Your task to perform on an android device: change timer sound Image 0: 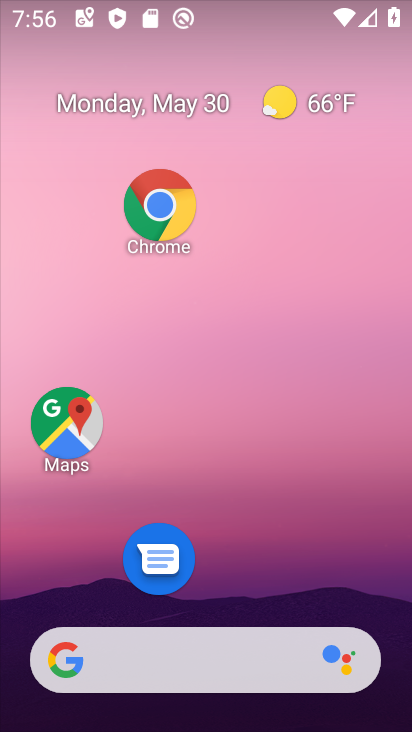
Step 0: drag from (345, 688) to (381, 643)
Your task to perform on an android device: change timer sound Image 1: 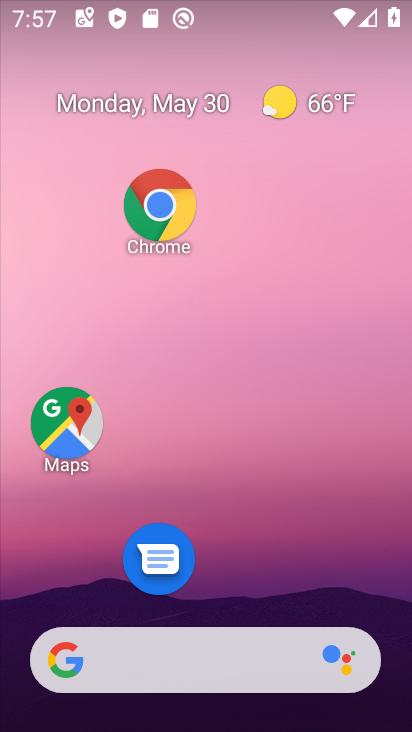
Step 1: drag from (287, 654) to (188, 88)
Your task to perform on an android device: change timer sound Image 2: 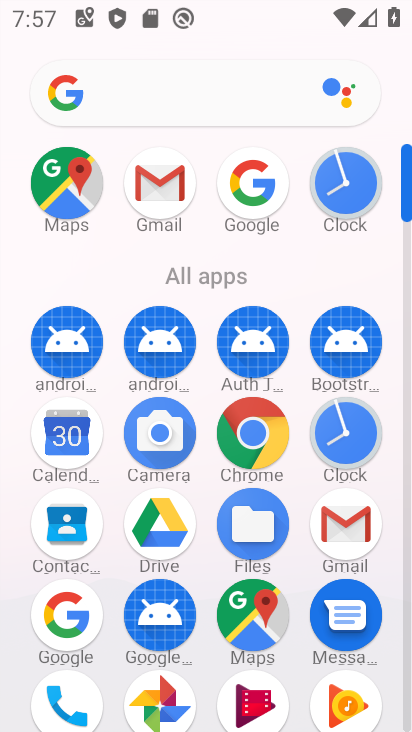
Step 2: drag from (219, 533) to (215, 253)
Your task to perform on an android device: change timer sound Image 3: 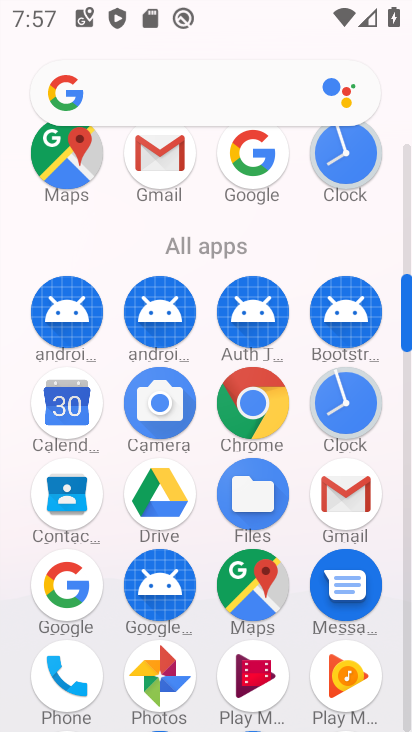
Step 3: drag from (206, 490) to (157, 270)
Your task to perform on an android device: change timer sound Image 4: 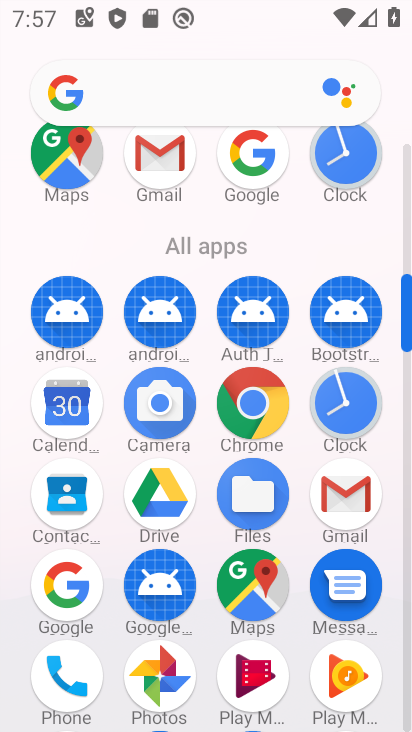
Step 4: drag from (212, 530) to (152, 153)
Your task to perform on an android device: change timer sound Image 5: 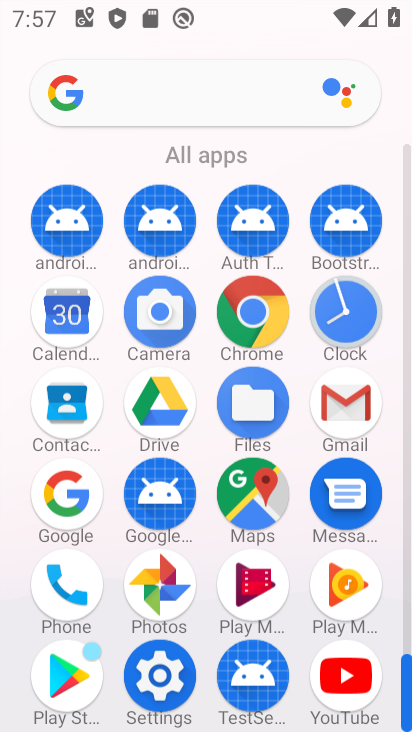
Step 5: drag from (191, 519) to (206, 254)
Your task to perform on an android device: change timer sound Image 6: 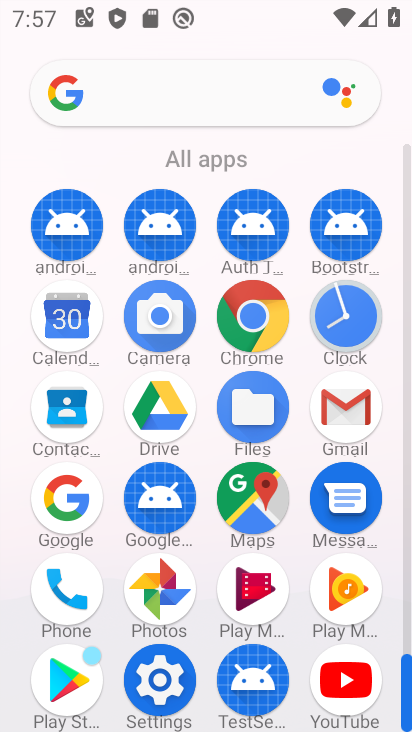
Step 6: click (155, 681)
Your task to perform on an android device: change timer sound Image 7: 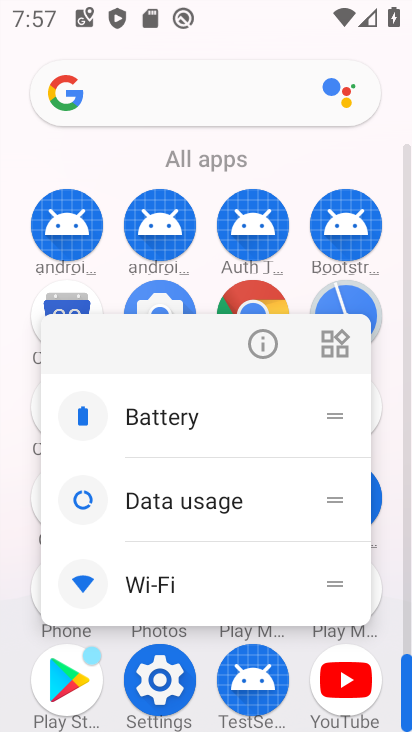
Step 7: click (159, 670)
Your task to perform on an android device: change timer sound Image 8: 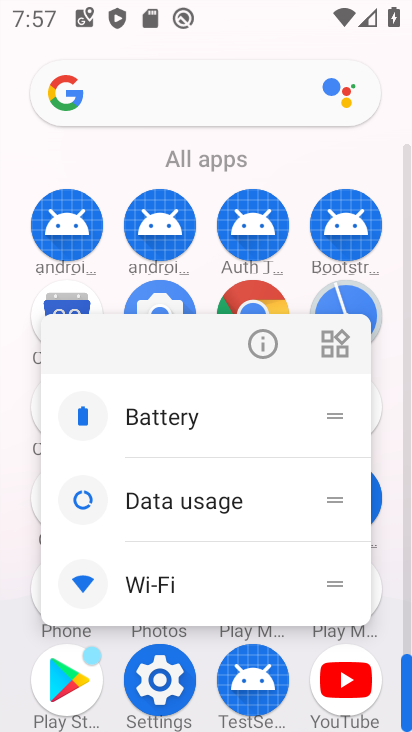
Step 8: click (162, 668)
Your task to perform on an android device: change timer sound Image 9: 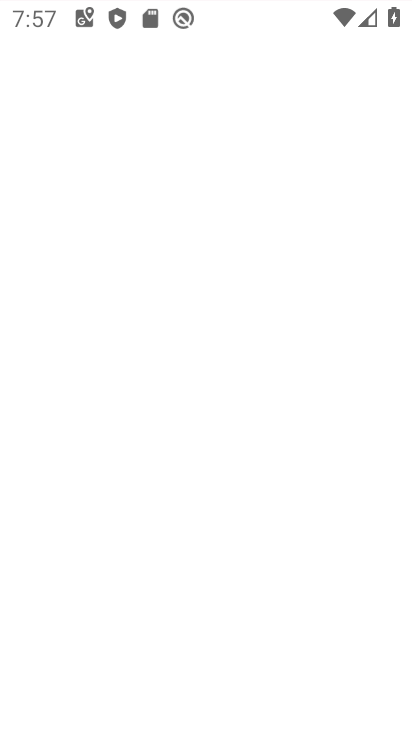
Step 9: click (165, 662)
Your task to perform on an android device: change timer sound Image 10: 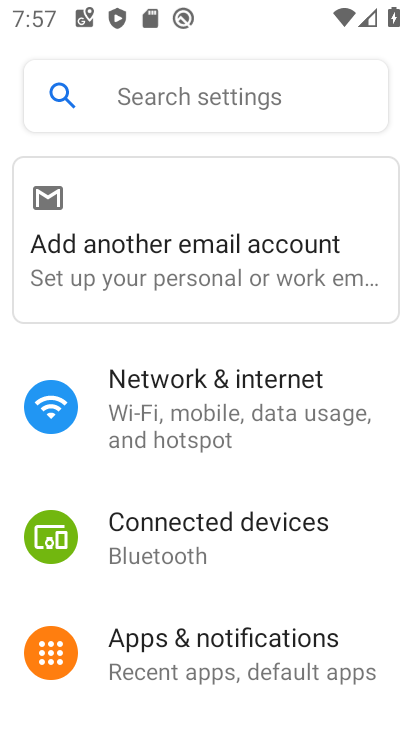
Step 10: drag from (220, 591) to (160, 237)
Your task to perform on an android device: change timer sound Image 11: 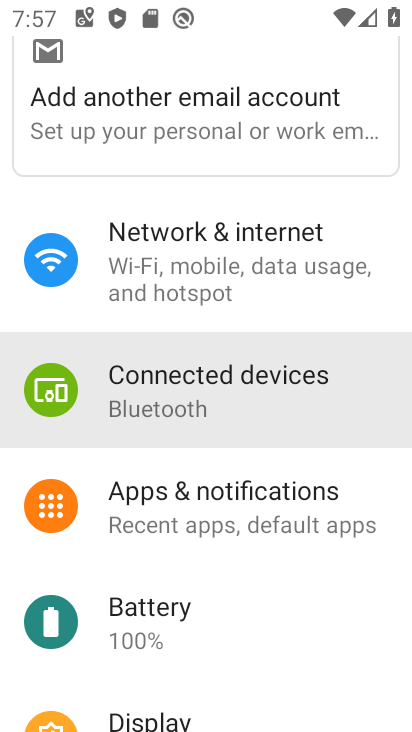
Step 11: drag from (224, 558) to (206, 256)
Your task to perform on an android device: change timer sound Image 12: 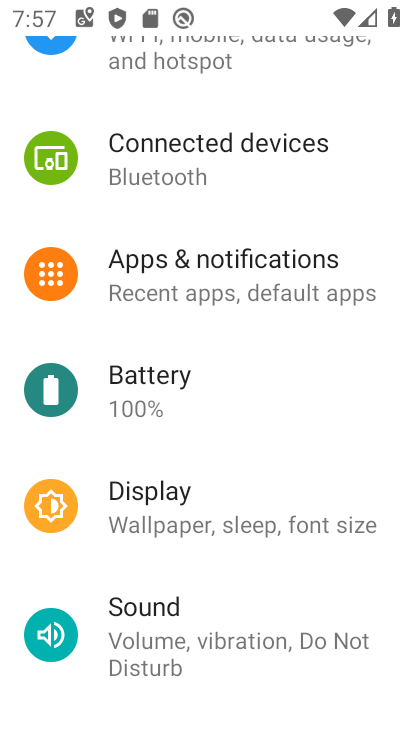
Step 12: drag from (218, 489) to (313, 71)
Your task to perform on an android device: change timer sound Image 13: 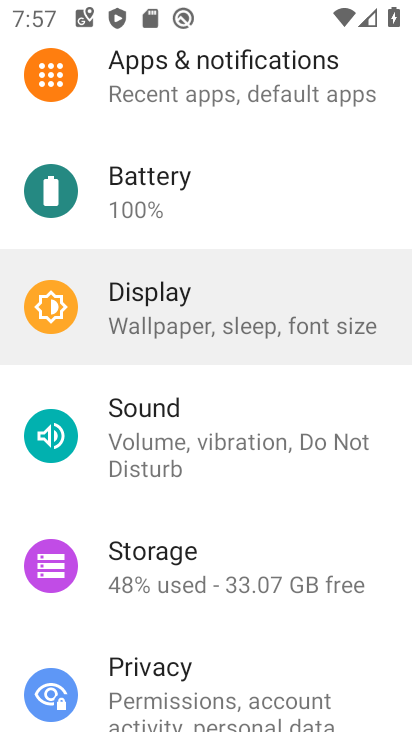
Step 13: drag from (217, 503) to (200, 144)
Your task to perform on an android device: change timer sound Image 14: 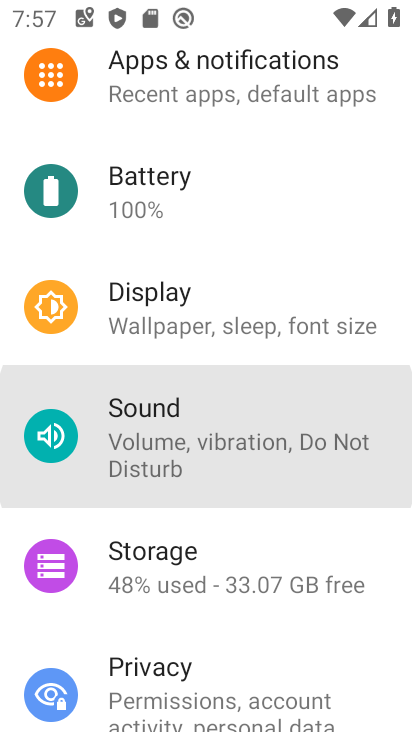
Step 14: drag from (184, 434) to (180, 152)
Your task to perform on an android device: change timer sound Image 15: 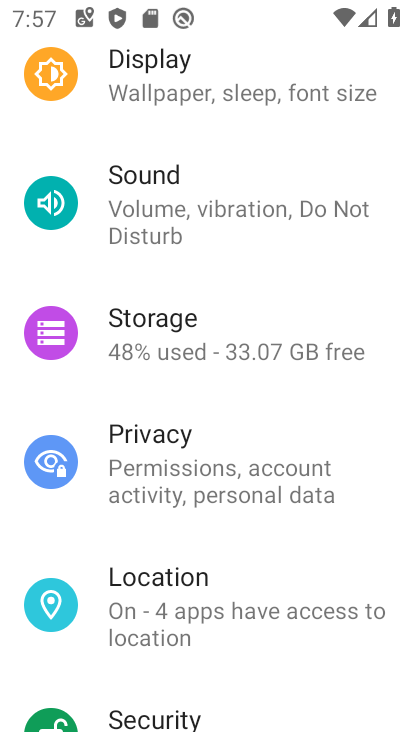
Step 15: drag from (228, 564) to (222, 137)
Your task to perform on an android device: change timer sound Image 16: 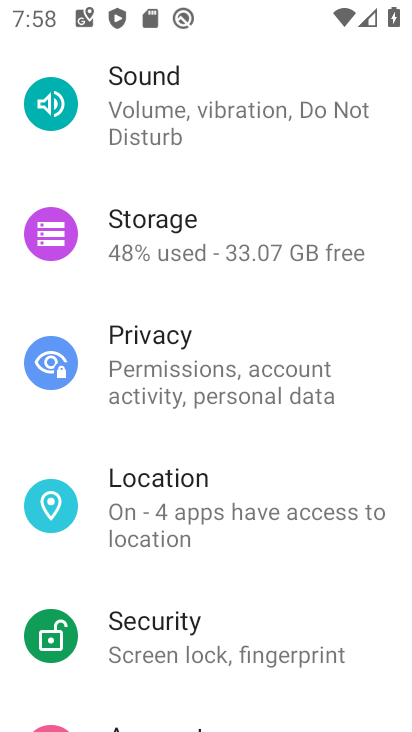
Step 16: press back button
Your task to perform on an android device: change timer sound Image 17: 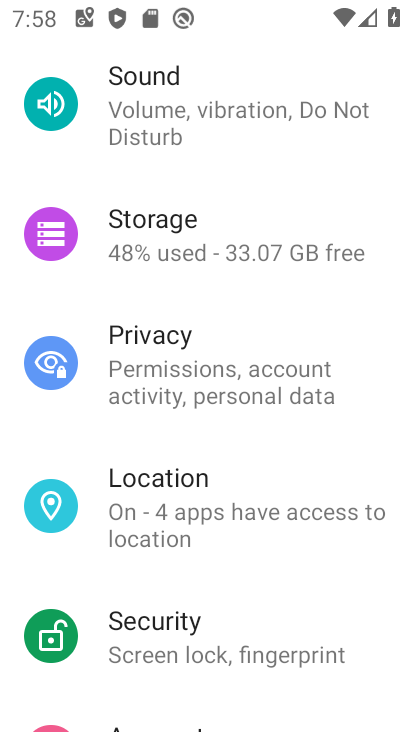
Step 17: press back button
Your task to perform on an android device: change timer sound Image 18: 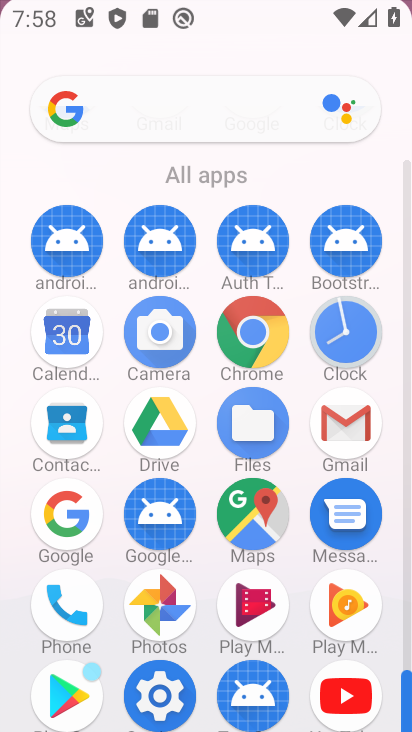
Step 18: press back button
Your task to perform on an android device: change timer sound Image 19: 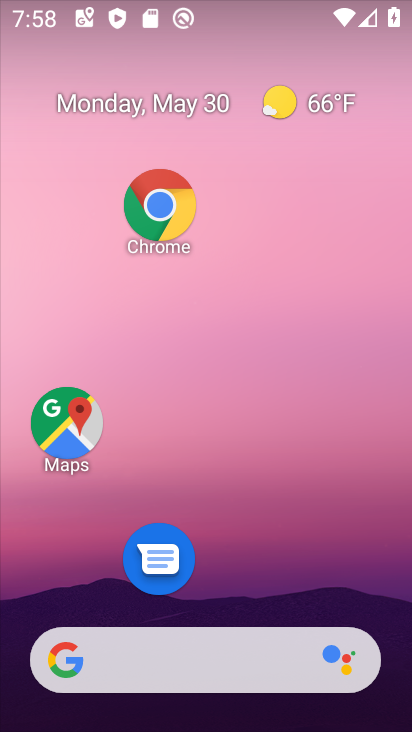
Step 19: drag from (174, 357) to (108, 130)
Your task to perform on an android device: change timer sound Image 20: 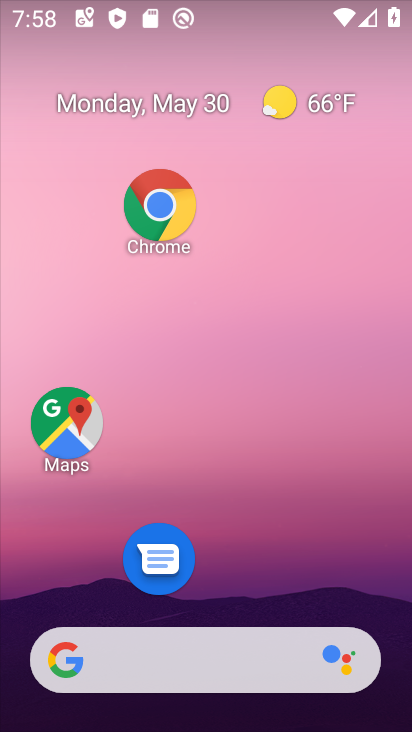
Step 20: drag from (269, 704) to (81, 59)
Your task to perform on an android device: change timer sound Image 21: 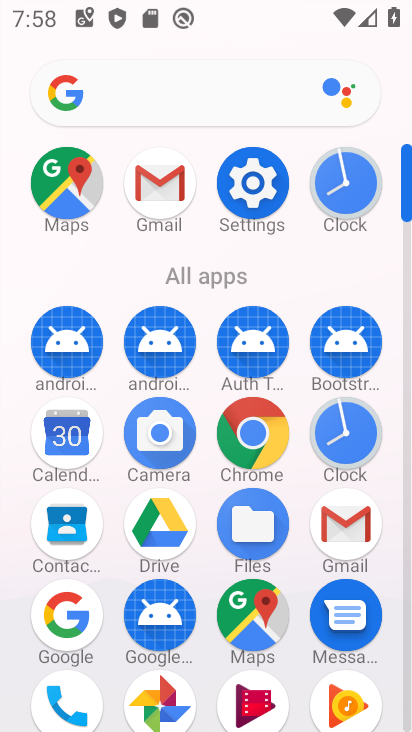
Step 21: click (326, 191)
Your task to perform on an android device: change timer sound Image 22: 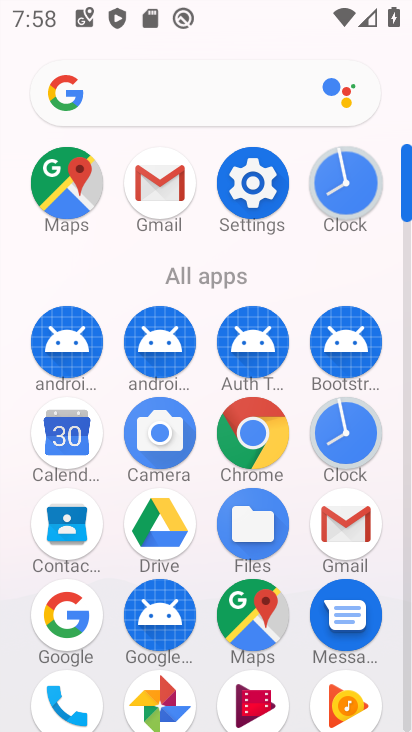
Step 22: click (327, 190)
Your task to perform on an android device: change timer sound Image 23: 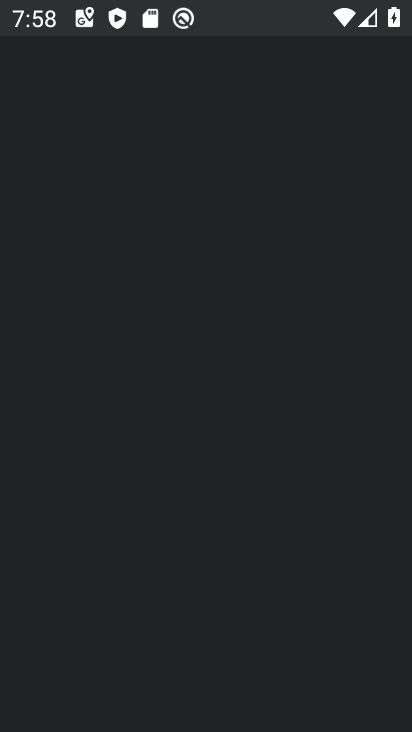
Step 23: click (334, 195)
Your task to perform on an android device: change timer sound Image 24: 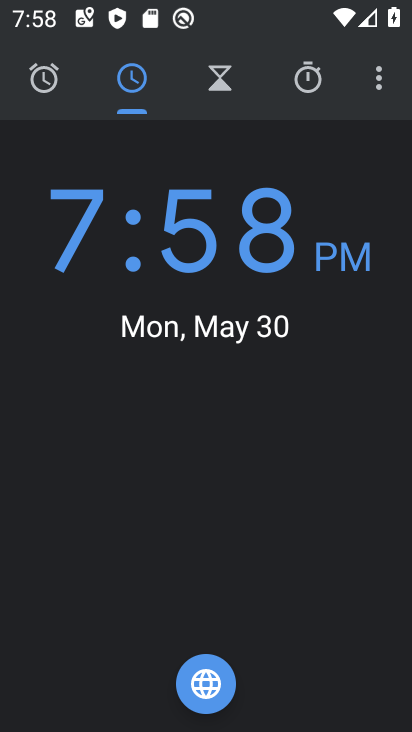
Step 24: click (217, 78)
Your task to perform on an android device: change timer sound Image 25: 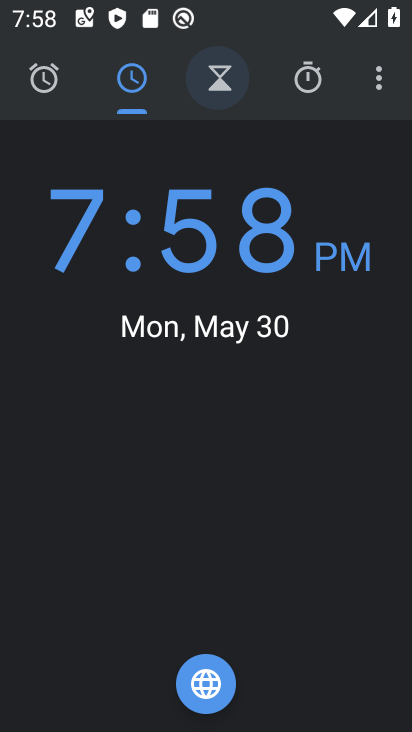
Step 25: click (217, 78)
Your task to perform on an android device: change timer sound Image 26: 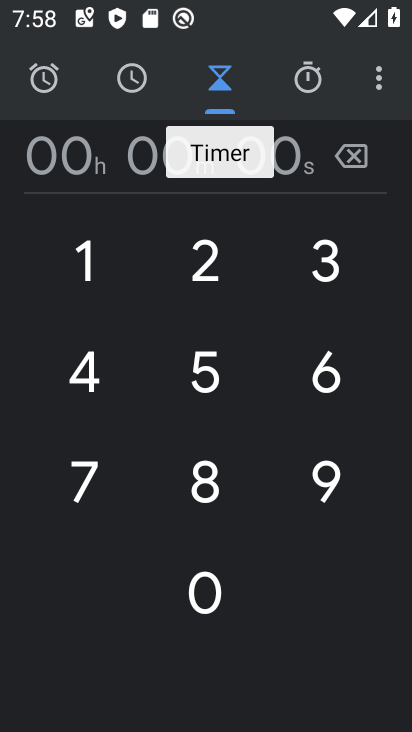
Step 26: click (216, 472)
Your task to perform on an android device: change timer sound Image 27: 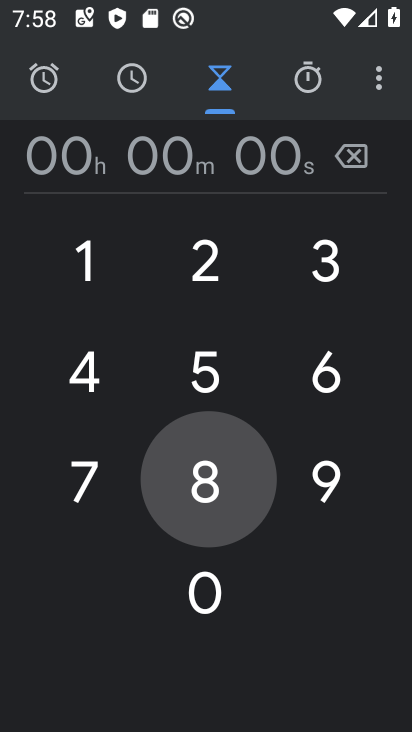
Step 27: click (216, 472)
Your task to perform on an android device: change timer sound Image 28: 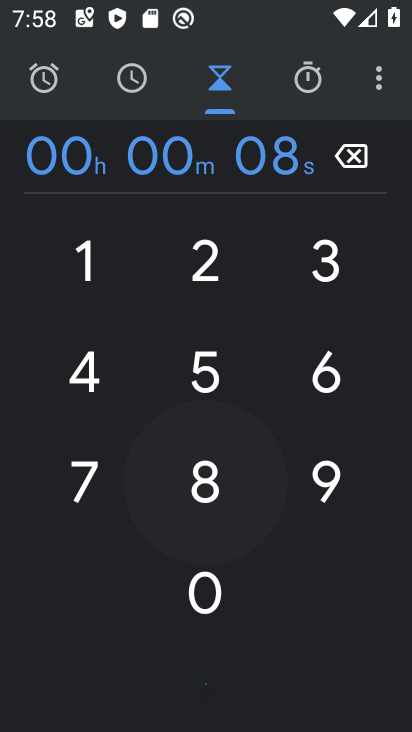
Step 28: click (216, 472)
Your task to perform on an android device: change timer sound Image 29: 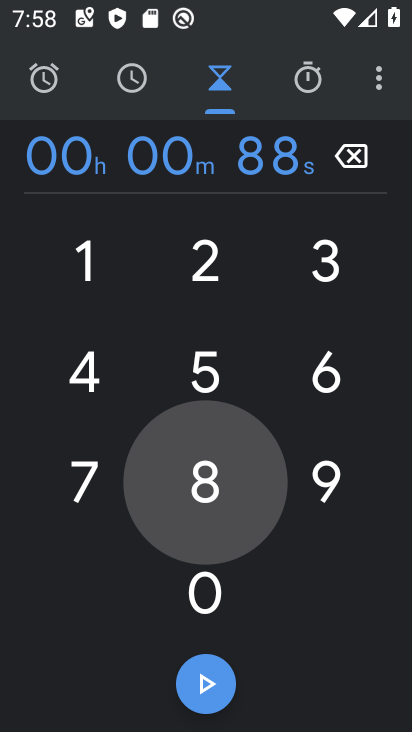
Step 29: click (224, 471)
Your task to perform on an android device: change timer sound Image 30: 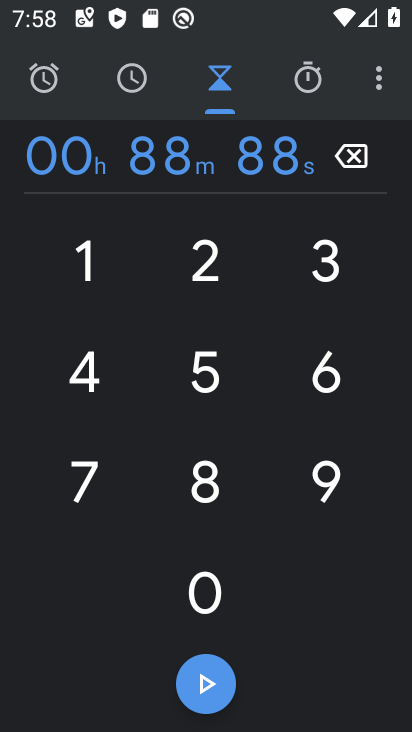
Step 30: click (208, 480)
Your task to perform on an android device: change timer sound Image 31: 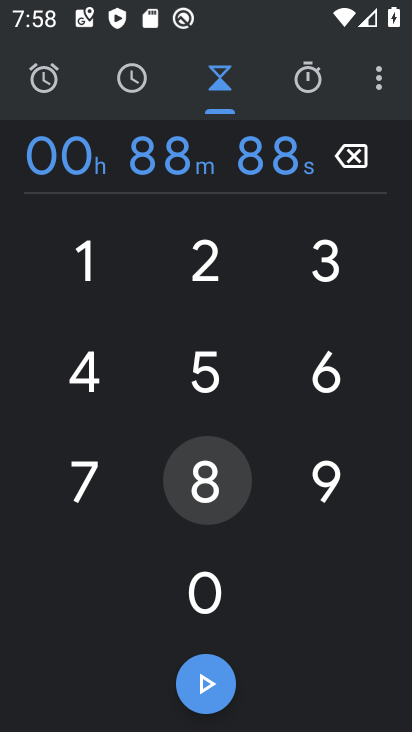
Step 31: click (209, 480)
Your task to perform on an android device: change timer sound Image 32: 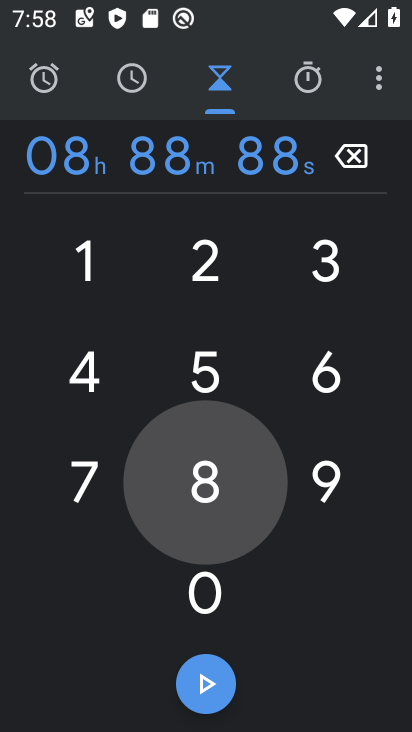
Step 32: click (210, 481)
Your task to perform on an android device: change timer sound Image 33: 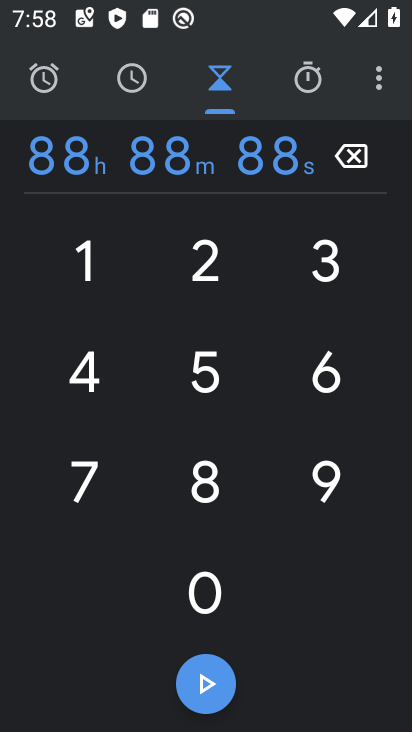
Step 33: click (206, 475)
Your task to perform on an android device: change timer sound Image 34: 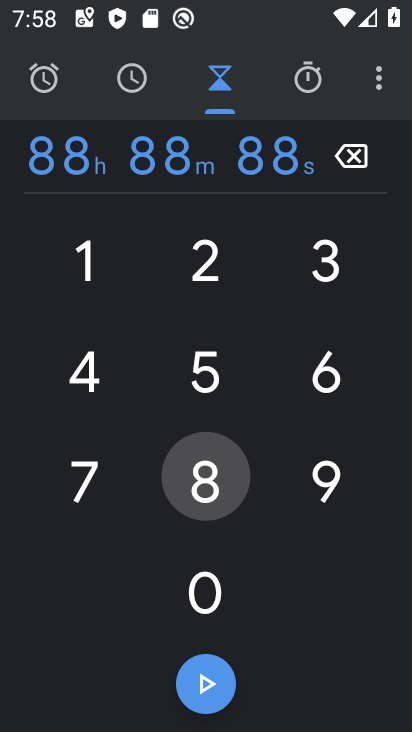
Step 34: click (206, 476)
Your task to perform on an android device: change timer sound Image 35: 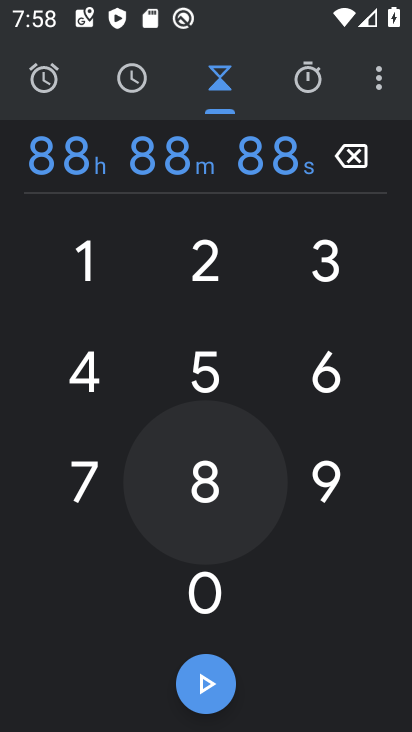
Step 35: click (206, 476)
Your task to perform on an android device: change timer sound Image 36: 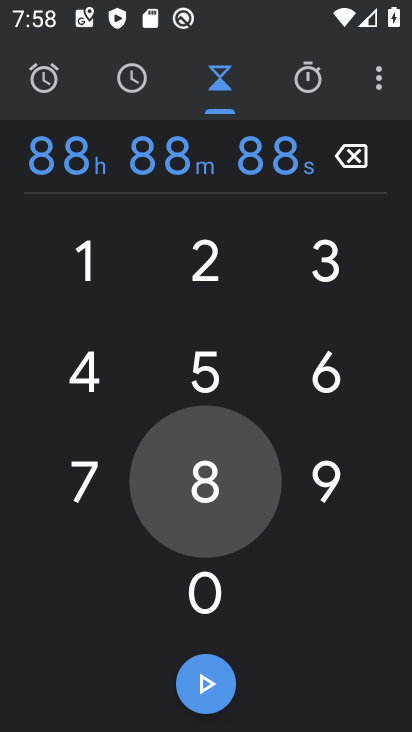
Step 36: click (207, 477)
Your task to perform on an android device: change timer sound Image 37: 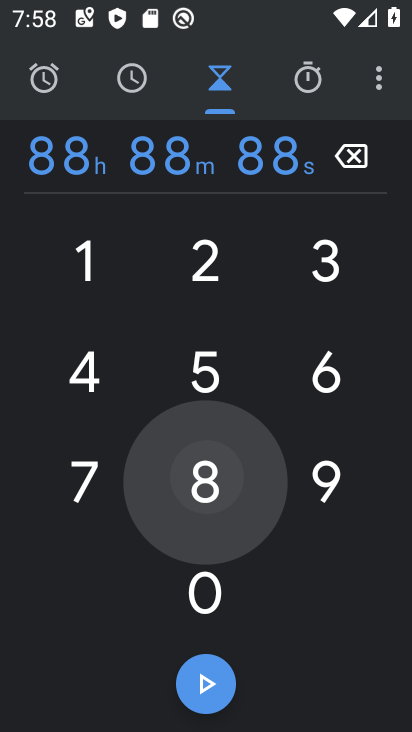
Step 37: click (206, 478)
Your task to perform on an android device: change timer sound Image 38: 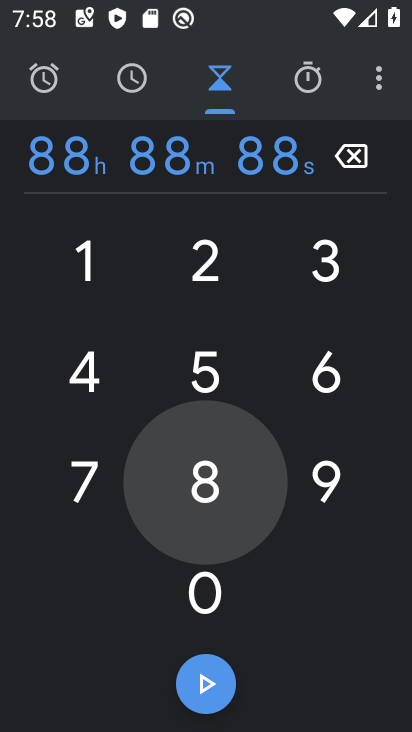
Step 38: click (206, 478)
Your task to perform on an android device: change timer sound Image 39: 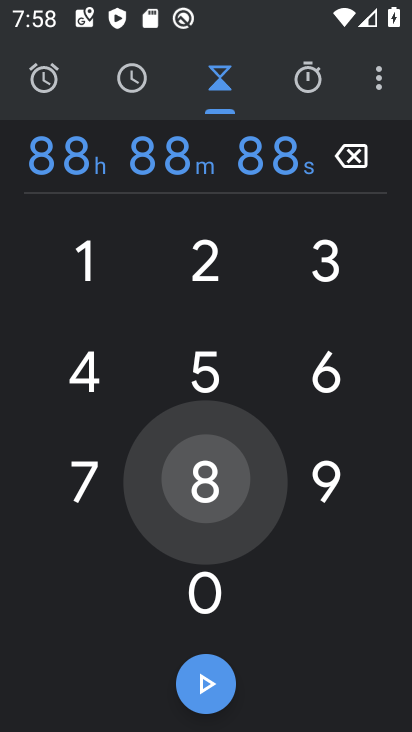
Step 39: click (211, 476)
Your task to perform on an android device: change timer sound Image 40: 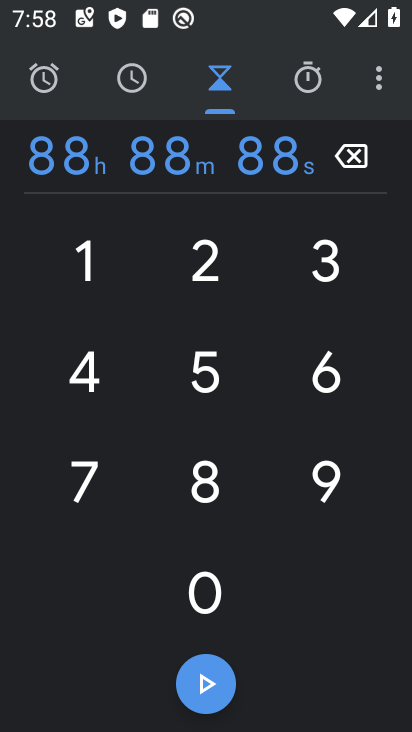
Step 40: click (213, 675)
Your task to perform on an android device: change timer sound Image 41: 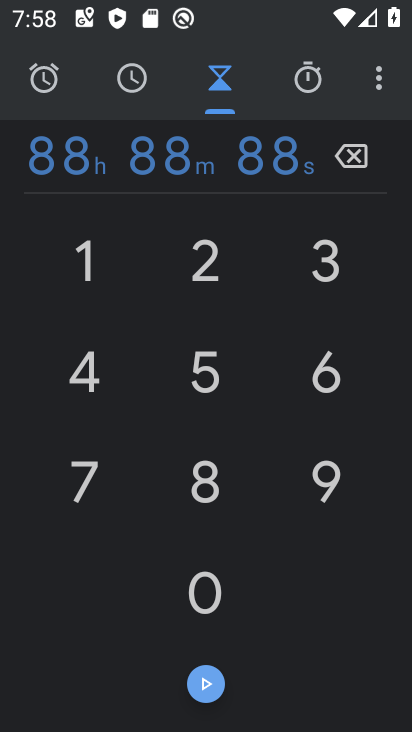
Step 41: click (202, 681)
Your task to perform on an android device: change timer sound Image 42: 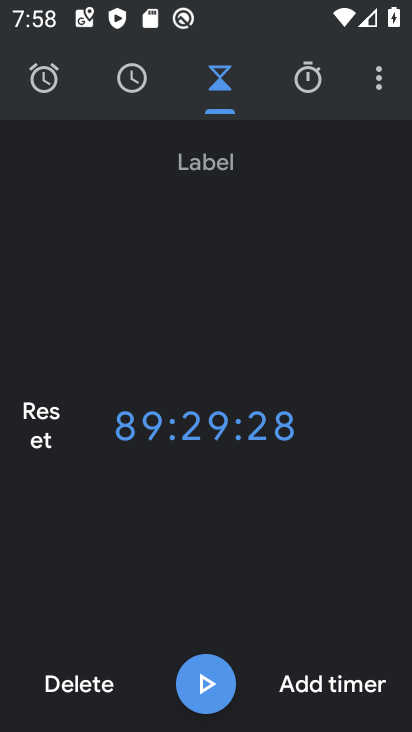
Step 42: click (202, 681)
Your task to perform on an android device: change timer sound Image 43: 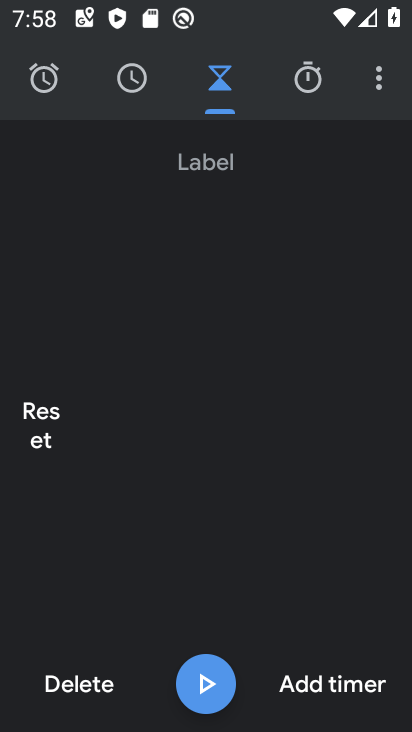
Step 43: click (202, 681)
Your task to perform on an android device: change timer sound Image 44: 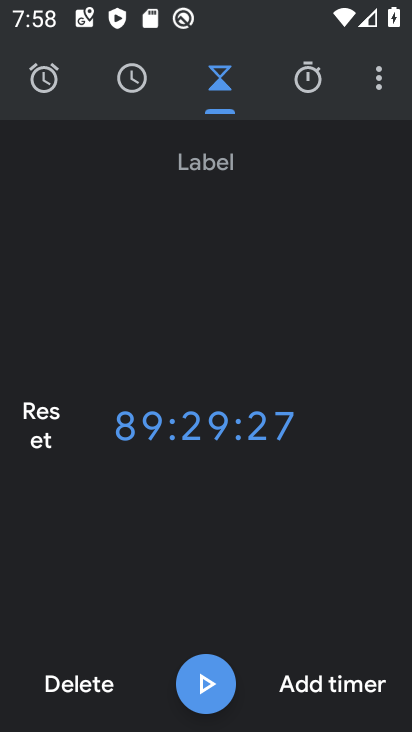
Step 44: click (207, 680)
Your task to perform on an android device: change timer sound Image 45: 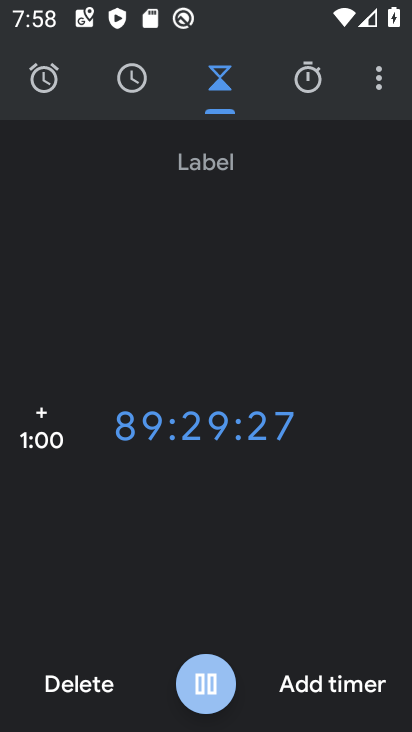
Step 45: click (207, 680)
Your task to perform on an android device: change timer sound Image 46: 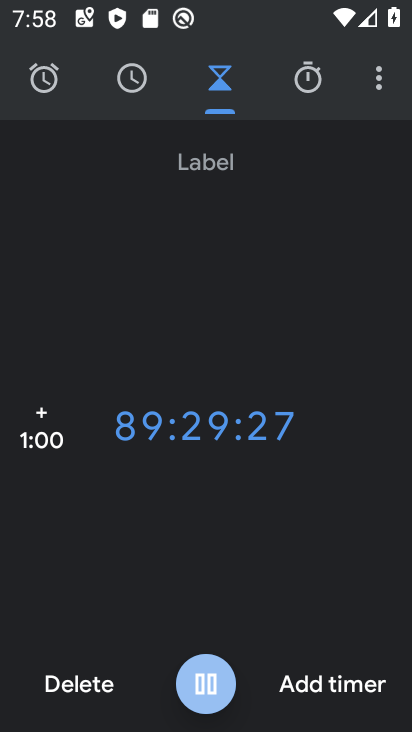
Step 46: click (207, 680)
Your task to perform on an android device: change timer sound Image 47: 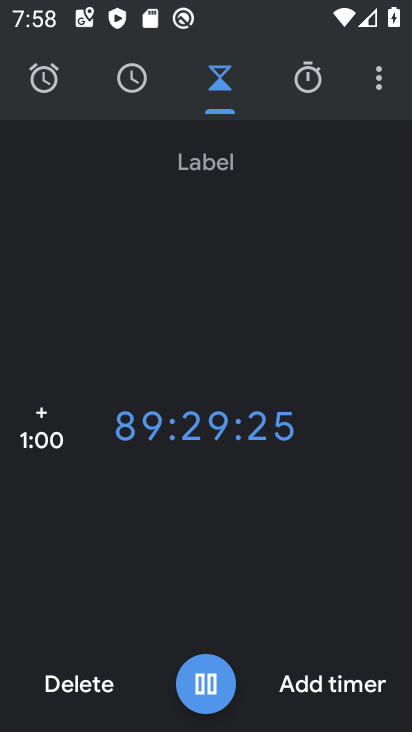
Step 47: click (206, 686)
Your task to perform on an android device: change timer sound Image 48: 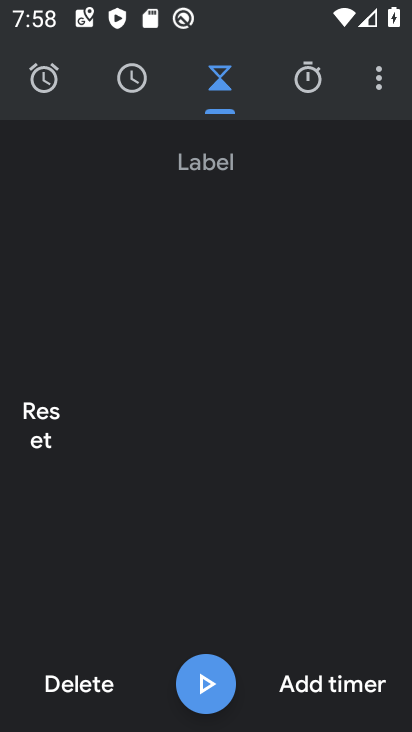
Step 48: task complete